Your task to perform on an android device: add a contact Image 0: 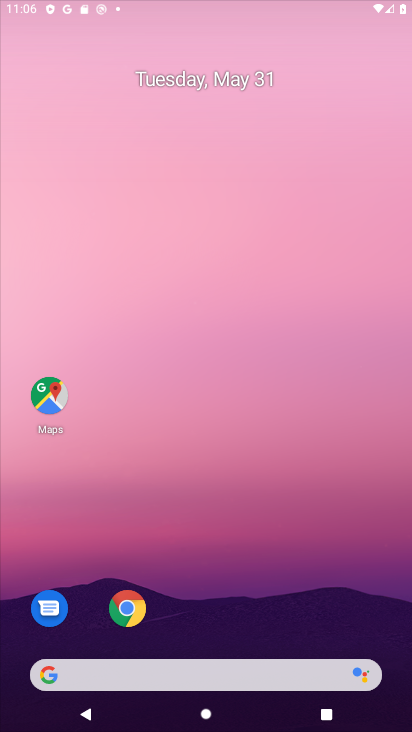
Step 0: drag from (377, 632) to (354, 79)
Your task to perform on an android device: add a contact Image 1: 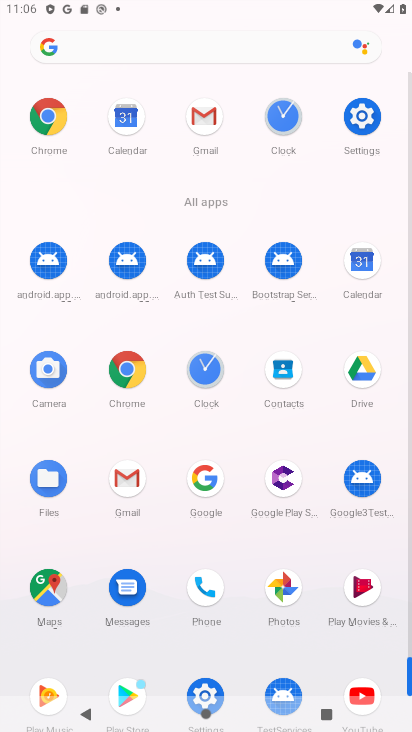
Step 1: click (289, 360)
Your task to perform on an android device: add a contact Image 2: 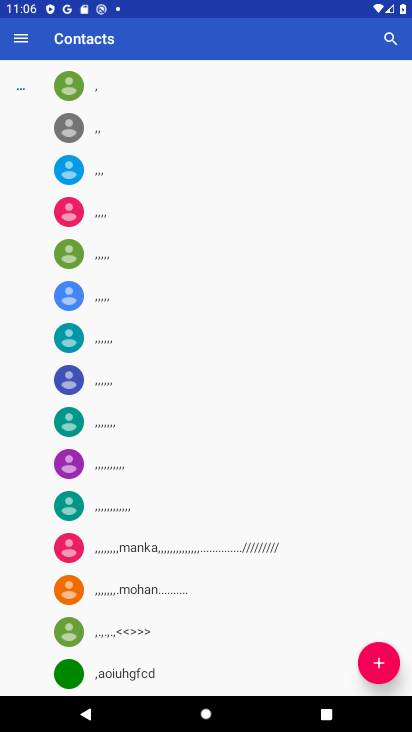
Step 2: click (366, 672)
Your task to perform on an android device: add a contact Image 3: 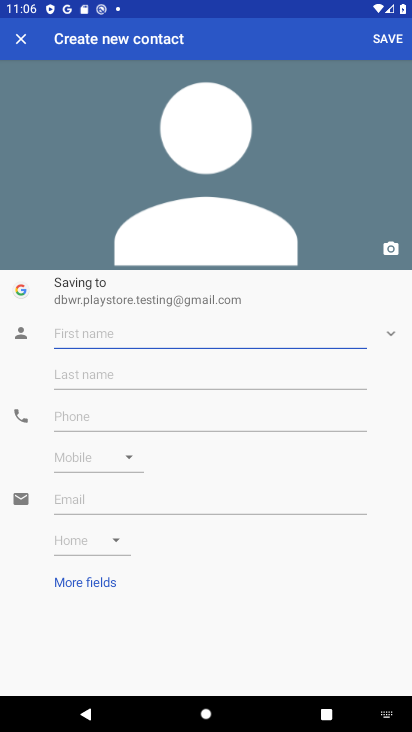
Step 3: type ""
Your task to perform on an android device: add a contact Image 4: 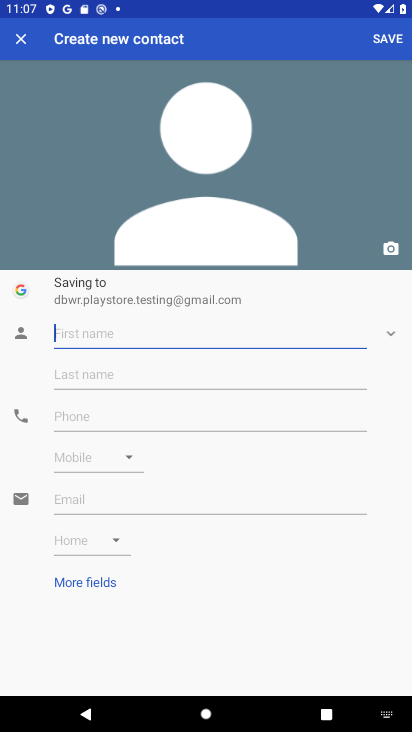
Step 4: type ".,mnbvxzasdghuyt56gt"
Your task to perform on an android device: add a contact Image 5: 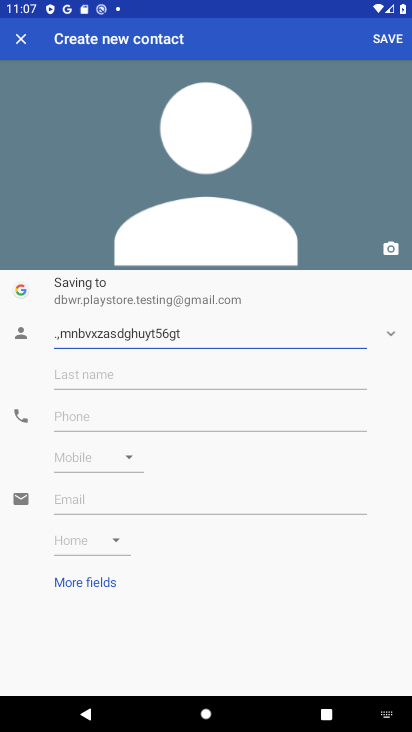
Step 5: click (124, 413)
Your task to perform on an android device: add a contact Image 6: 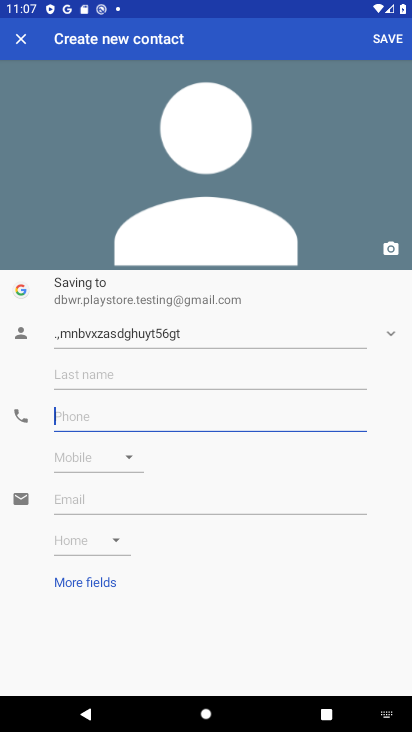
Step 6: click (124, 413)
Your task to perform on an android device: add a contact Image 7: 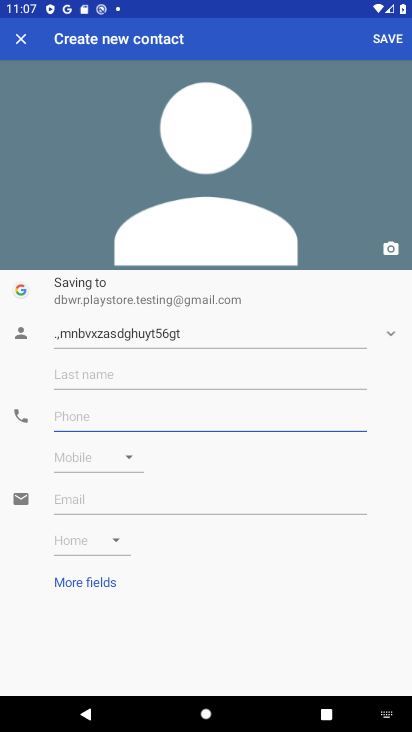
Step 7: click (124, 413)
Your task to perform on an android device: add a contact Image 8: 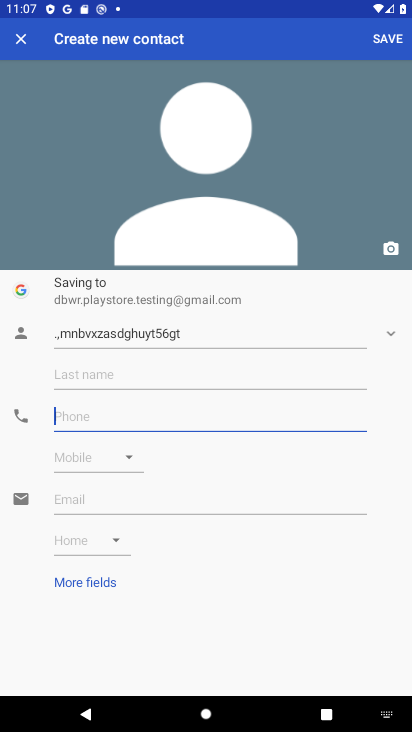
Step 8: type "4399887"
Your task to perform on an android device: add a contact Image 9: 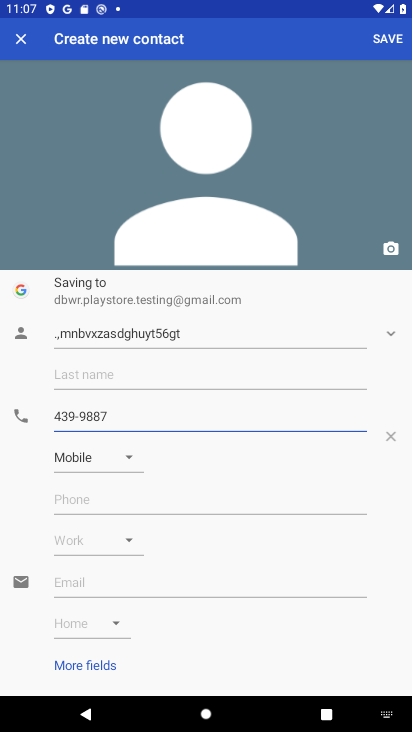
Step 9: click (372, 40)
Your task to perform on an android device: add a contact Image 10: 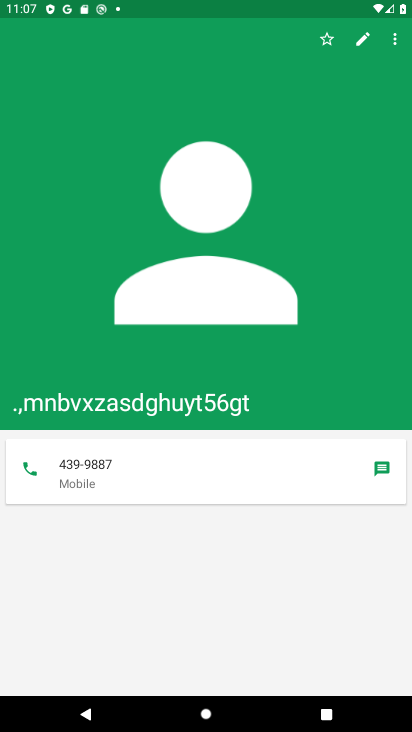
Step 10: task complete